Your task to perform on an android device: Go to accessibility settings Image 0: 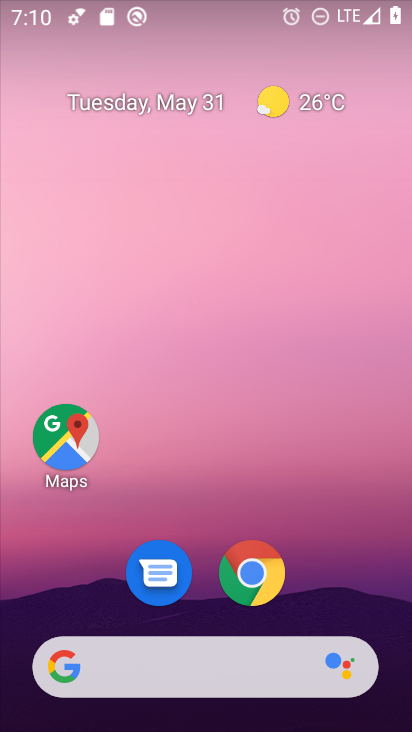
Step 0: drag from (399, 657) to (248, 39)
Your task to perform on an android device: Go to accessibility settings Image 1: 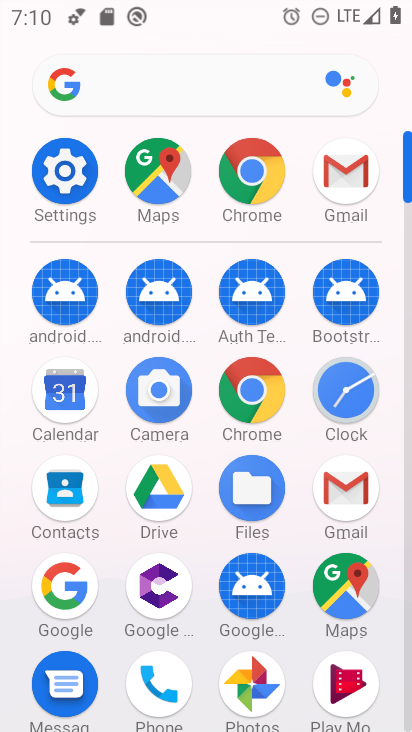
Step 1: click (76, 187)
Your task to perform on an android device: Go to accessibility settings Image 2: 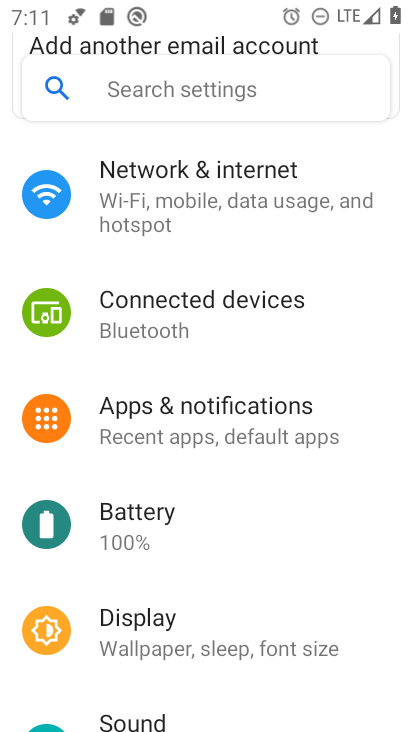
Step 2: drag from (238, 678) to (297, 191)
Your task to perform on an android device: Go to accessibility settings Image 3: 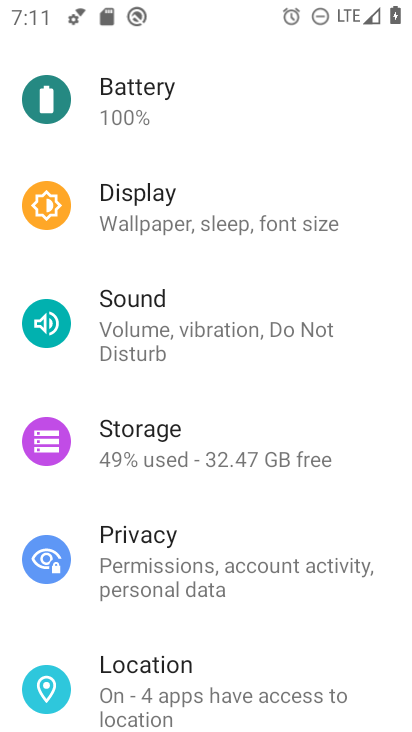
Step 3: drag from (200, 660) to (246, 157)
Your task to perform on an android device: Go to accessibility settings Image 4: 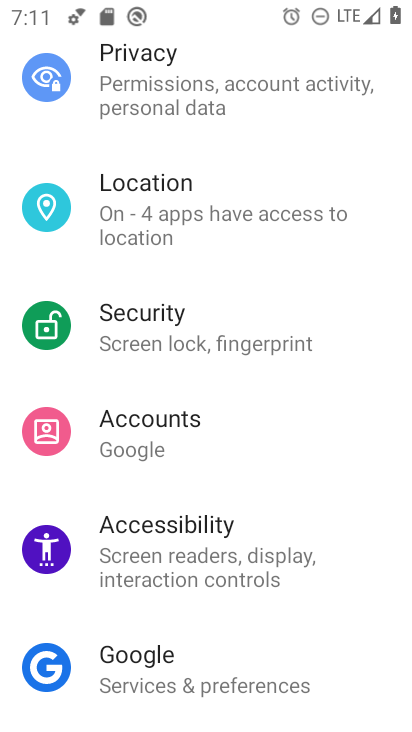
Step 4: click (205, 547)
Your task to perform on an android device: Go to accessibility settings Image 5: 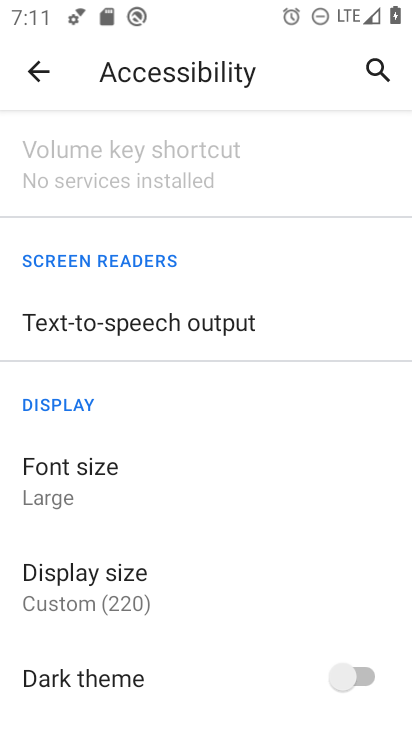
Step 5: task complete